Your task to perform on an android device: turn on improve location accuracy Image 0: 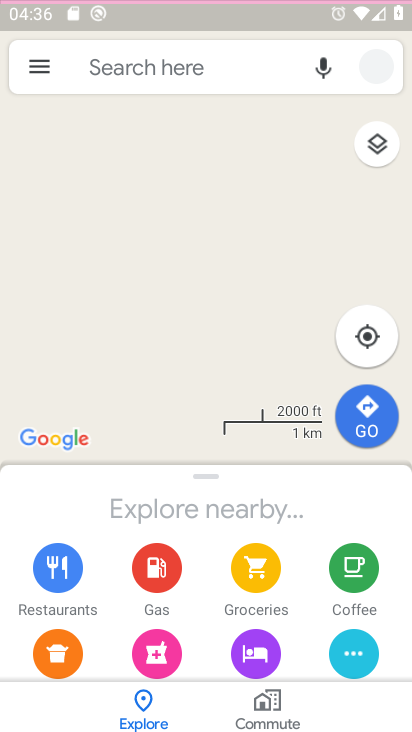
Step 0: click (133, 593)
Your task to perform on an android device: turn on improve location accuracy Image 1: 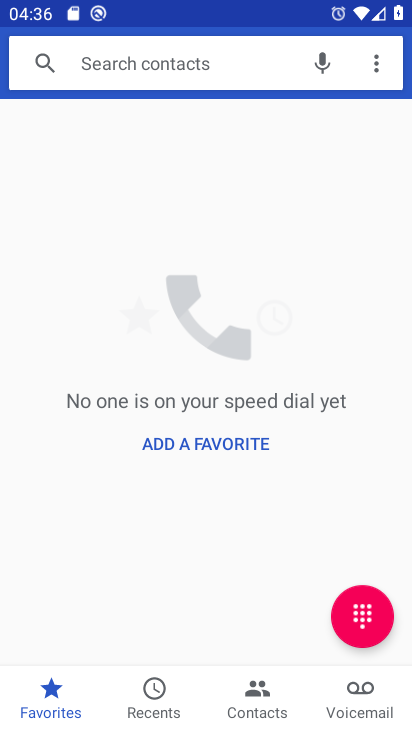
Step 1: click (388, 71)
Your task to perform on an android device: turn on improve location accuracy Image 2: 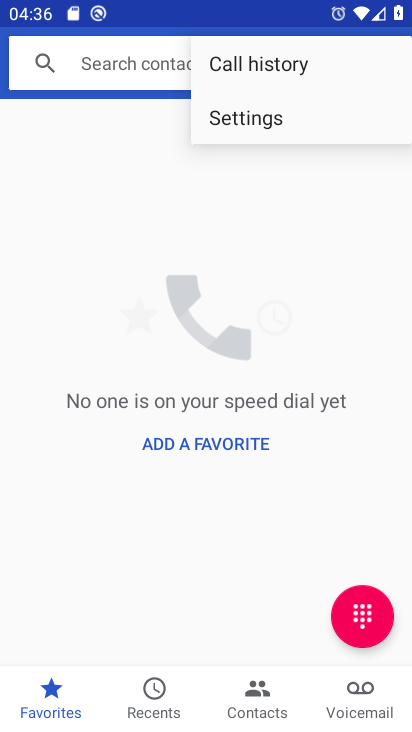
Step 2: press home button
Your task to perform on an android device: turn on improve location accuracy Image 3: 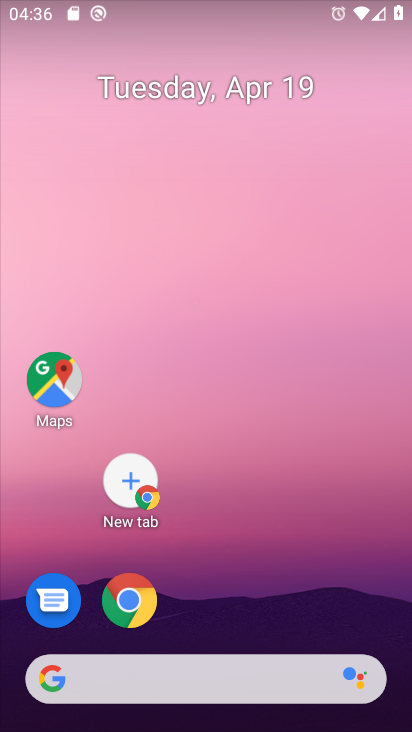
Step 3: drag from (204, 14) to (290, 441)
Your task to perform on an android device: turn on improve location accuracy Image 4: 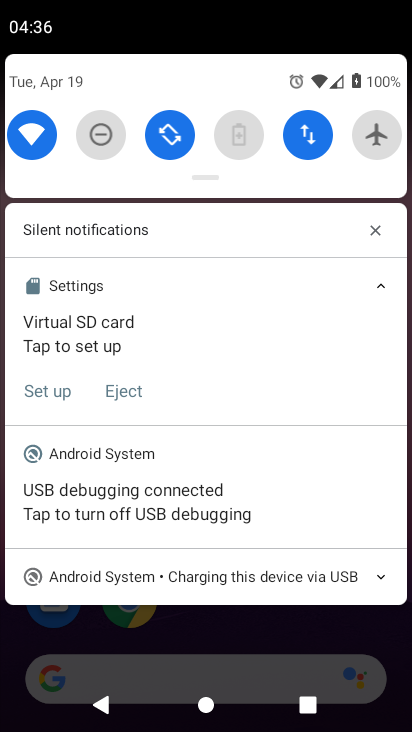
Step 4: drag from (194, 84) to (261, 522)
Your task to perform on an android device: turn on improve location accuracy Image 5: 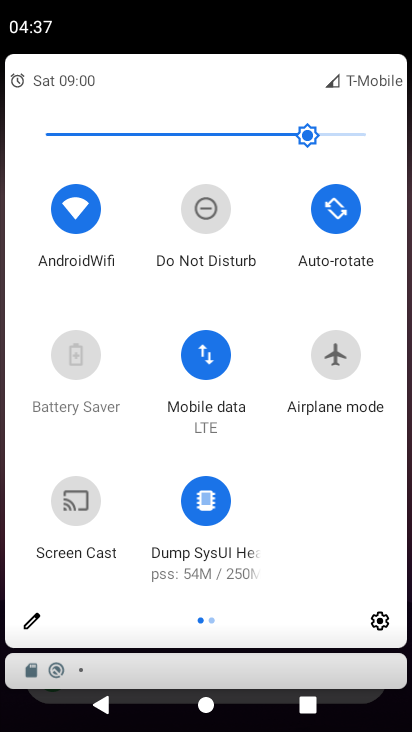
Step 5: click (385, 621)
Your task to perform on an android device: turn on improve location accuracy Image 6: 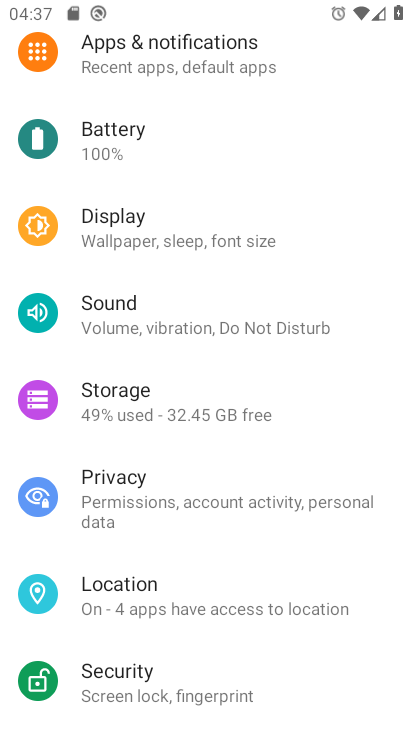
Step 6: click (169, 621)
Your task to perform on an android device: turn on improve location accuracy Image 7: 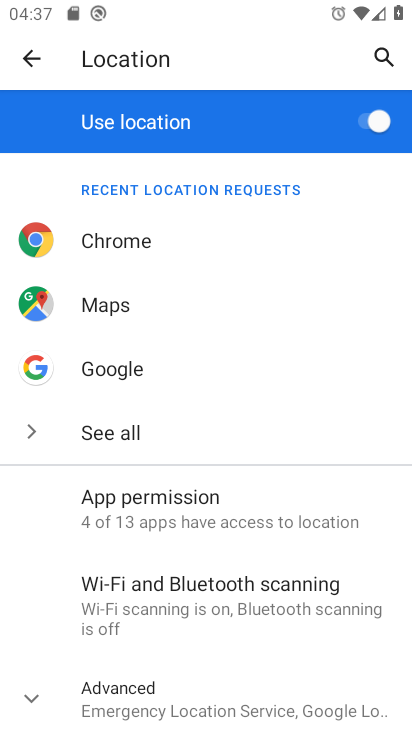
Step 7: drag from (181, 638) to (171, 158)
Your task to perform on an android device: turn on improve location accuracy Image 8: 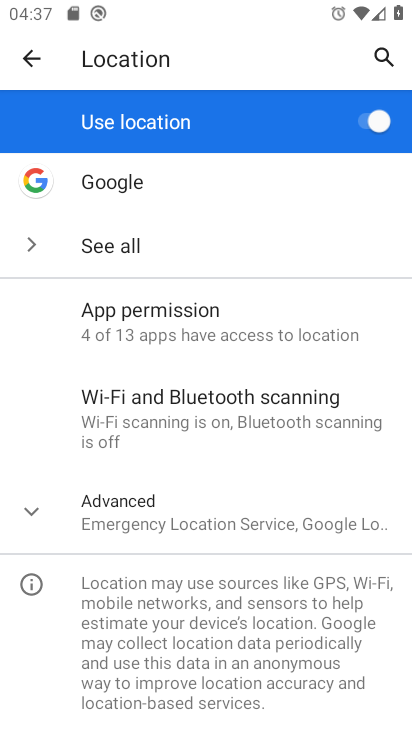
Step 8: drag from (219, 267) to (254, 653)
Your task to perform on an android device: turn on improve location accuracy Image 9: 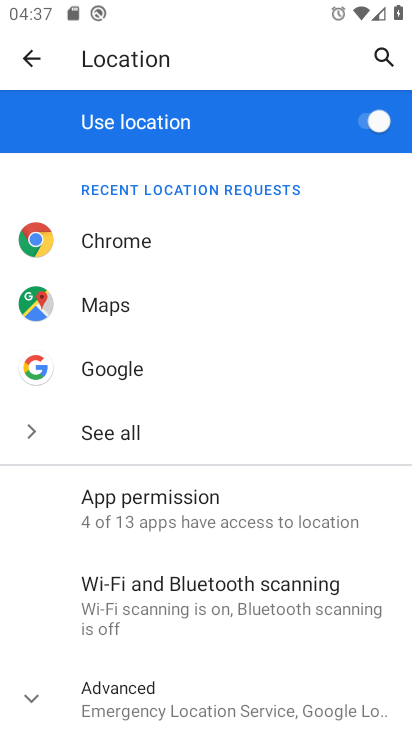
Step 9: drag from (219, 641) to (157, 216)
Your task to perform on an android device: turn on improve location accuracy Image 10: 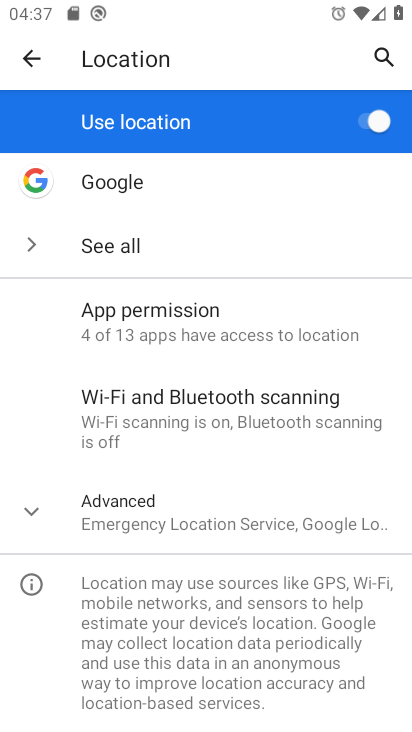
Step 10: click (127, 519)
Your task to perform on an android device: turn on improve location accuracy Image 11: 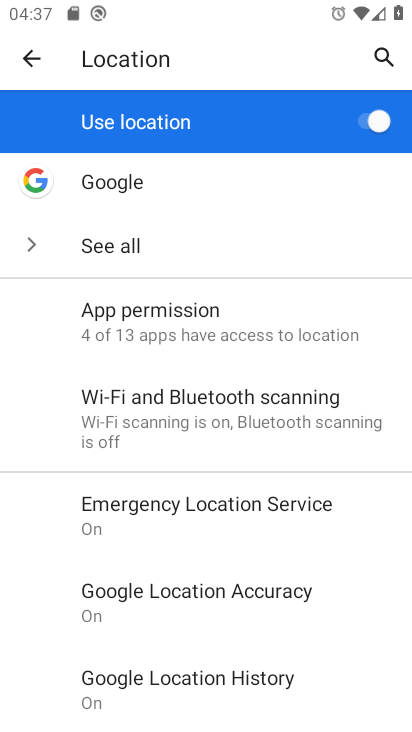
Step 11: click (233, 594)
Your task to perform on an android device: turn on improve location accuracy Image 12: 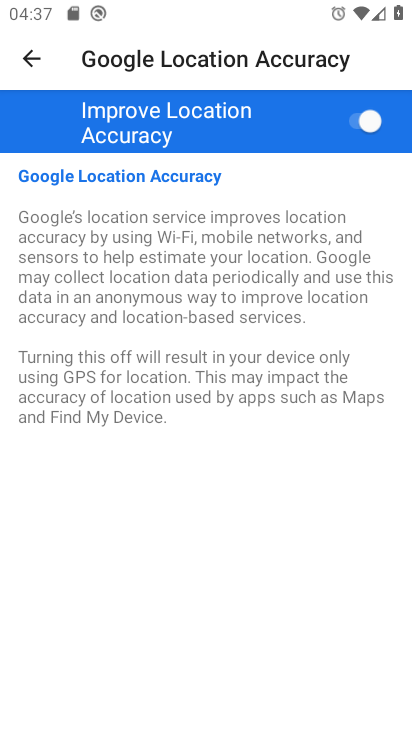
Step 12: task complete